Your task to perform on an android device: toggle pop-ups in chrome Image 0: 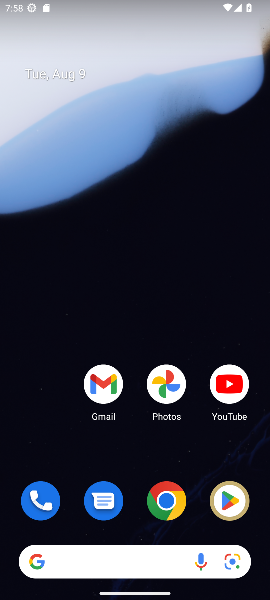
Step 0: click (162, 496)
Your task to perform on an android device: toggle pop-ups in chrome Image 1: 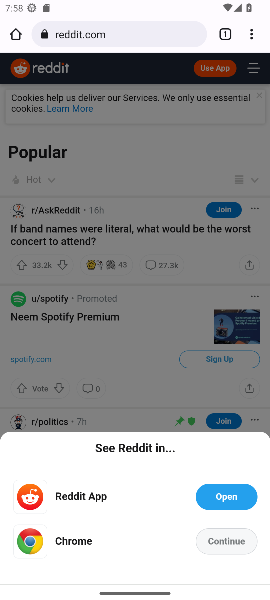
Step 1: click (249, 36)
Your task to perform on an android device: toggle pop-ups in chrome Image 2: 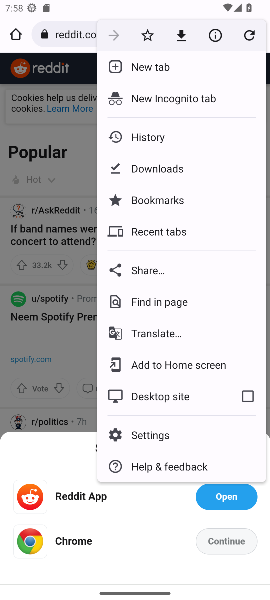
Step 2: click (139, 431)
Your task to perform on an android device: toggle pop-ups in chrome Image 3: 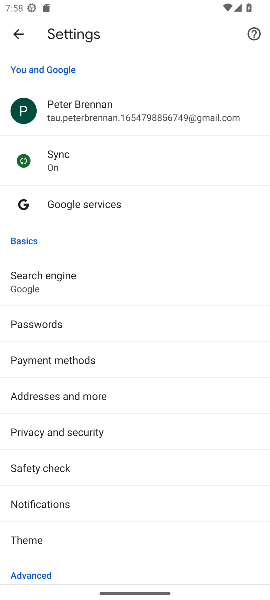
Step 3: drag from (63, 504) to (39, 189)
Your task to perform on an android device: toggle pop-ups in chrome Image 4: 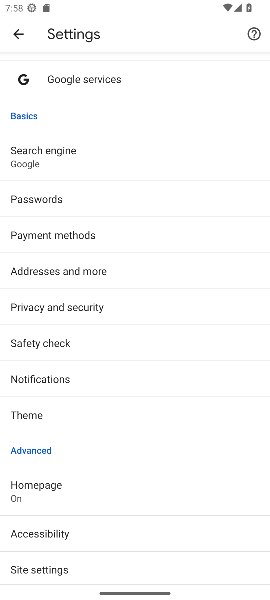
Step 4: drag from (68, 497) to (75, 188)
Your task to perform on an android device: toggle pop-ups in chrome Image 5: 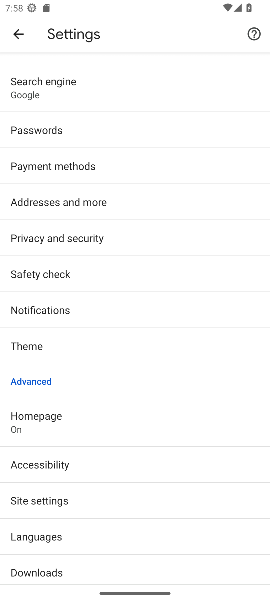
Step 5: click (71, 500)
Your task to perform on an android device: toggle pop-ups in chrome Image 6: 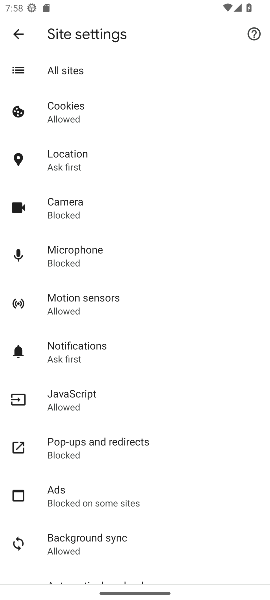
Step 6: click (90, 442)
Your task to perform on an android device: toggle pop-ups in chrome Image 7: 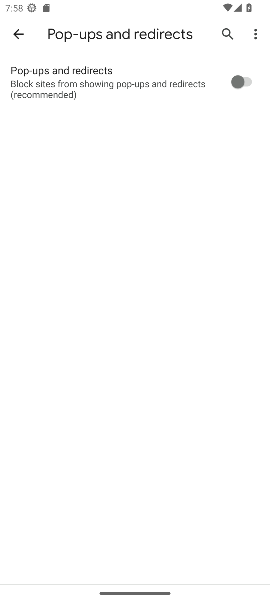
Step 7: click (242, 82)
Your task to perform on an android device: toggle pop-ups in chrome Image 8: 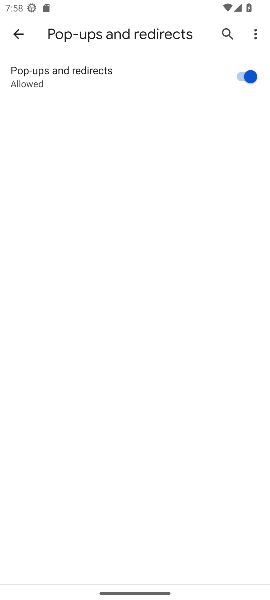
Step 8: task complete